Your task to perform on an android device: Look up the book "The Girl on the Train". Image 0: 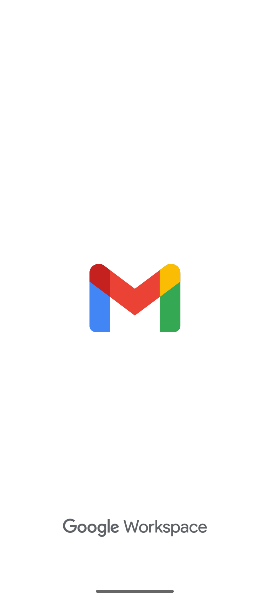
Step 0: press home button
Your task to perform on an android device: Look up the book "The Girl on the Train". Image 1: 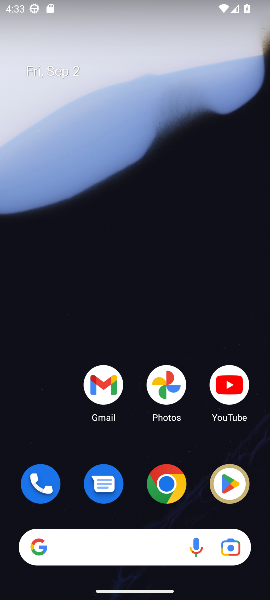
Step 1: click (169, 480)
Your task to perform on an android device: Look up the book "The Girl on the Train". Image 2: 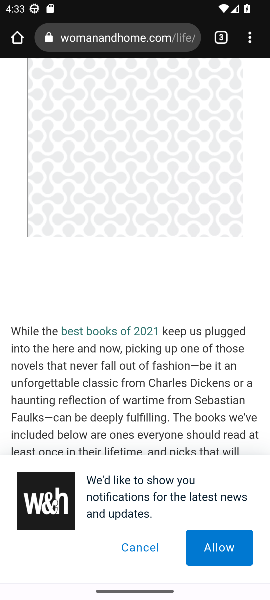
Step 2: click (154, 41)
Your task to perform on an android device: Look up the book "The Girl on the Train". Image 3: 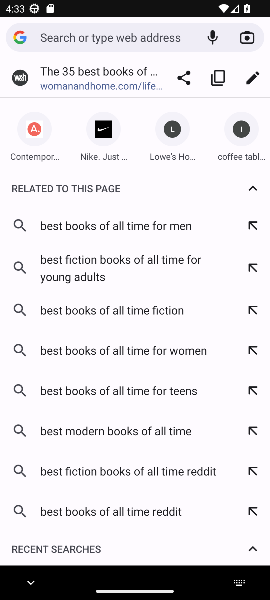
Step 3: type "The Girl on the Train"
Your task to perform on an android device: Look up the book "The Girl on the Train". Image 4: 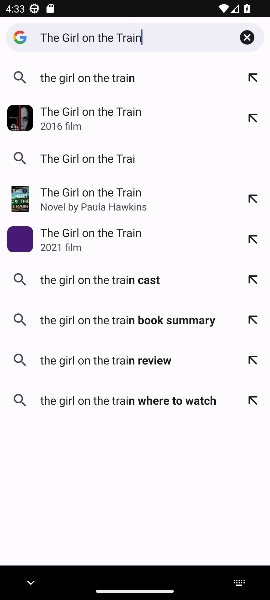
Step 4: press enter
Your task to perform on an android device: Look up the book "The Girl on the Train". Image 5: 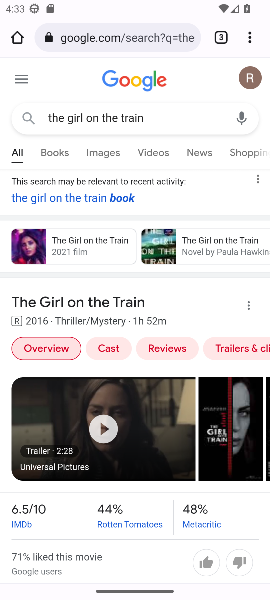
Step 5: task complete